Your task to perform on an android device: Open the calendar and show me this week's events? Image 0: 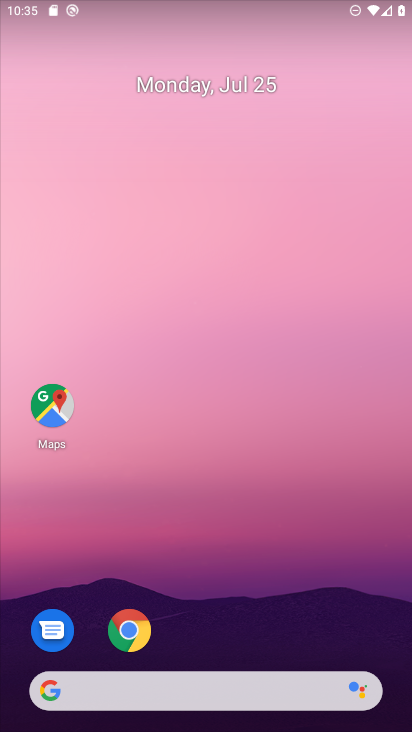
Step 0: drag from (296, 593) to (229, 92)
Your task to perform on an android device: Open the calendar and show me this week's events? Image 1: 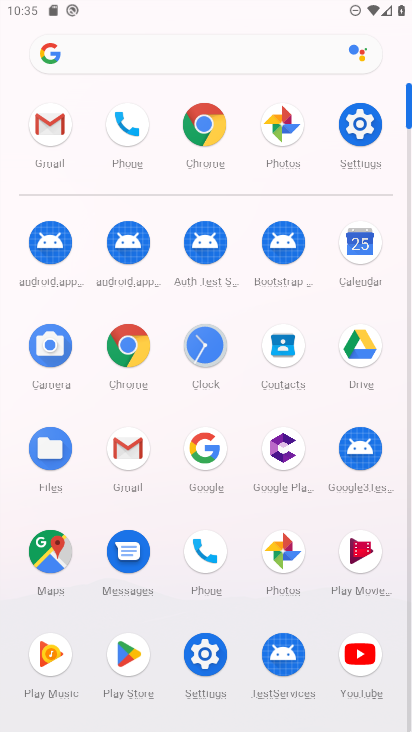
Step 1: click (353, 241)
Your task to perform on an android device: Open the calendar and show me this week's events? Image 2: 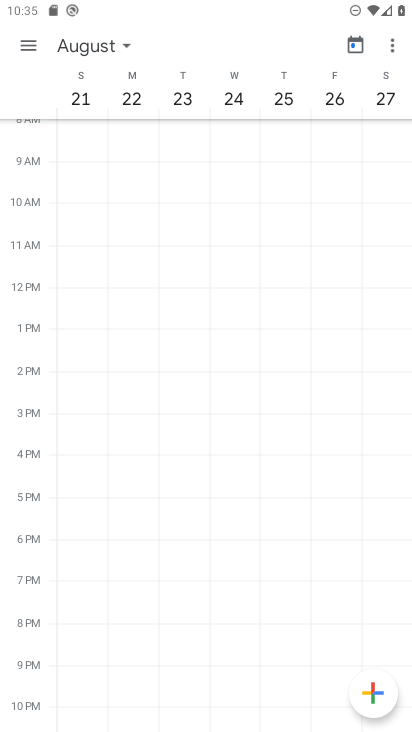
Step 2: click (109, 44)
Your task to perform on an android device: Open the calendar and show me this week's events? Image 3: 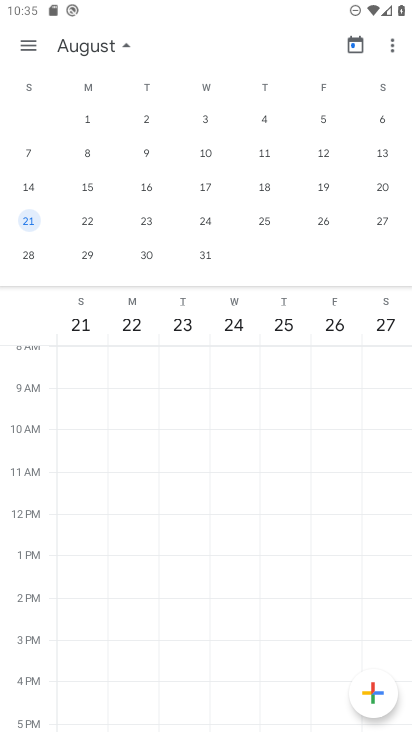
Step 3: drag from (68, 154) to (365, 159)
Your task to perform on an android device: Open the calendar and show me this week's events? Image 4: 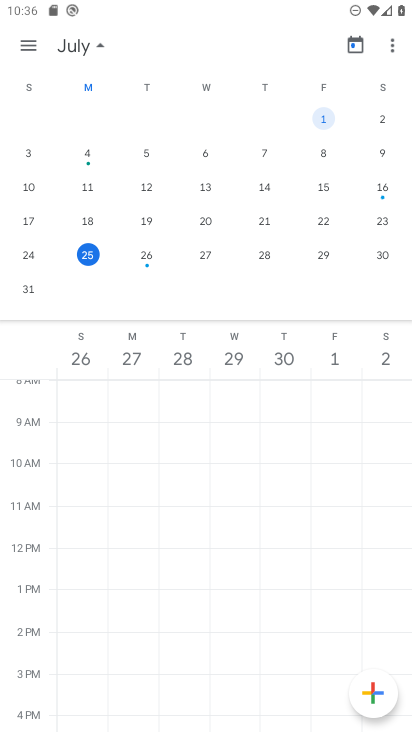
Step 4: click (98, 253)
Your task to perform on an android device: Open the calendar and show me this week's events? Image 5: 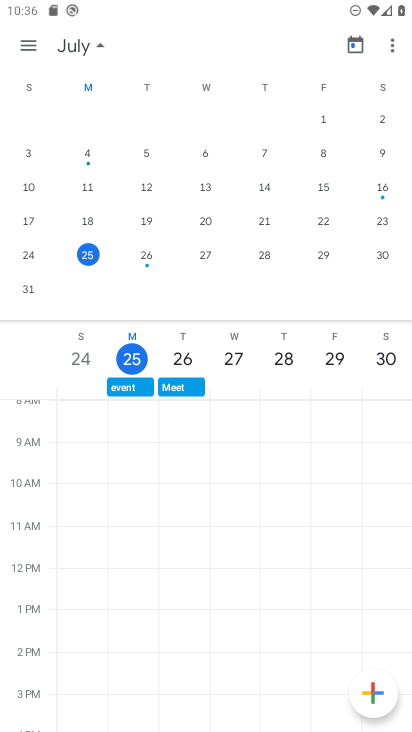
Step 5: task complete